Your task to perform on an android device: toggle show notifications on the lock screen Image 0: 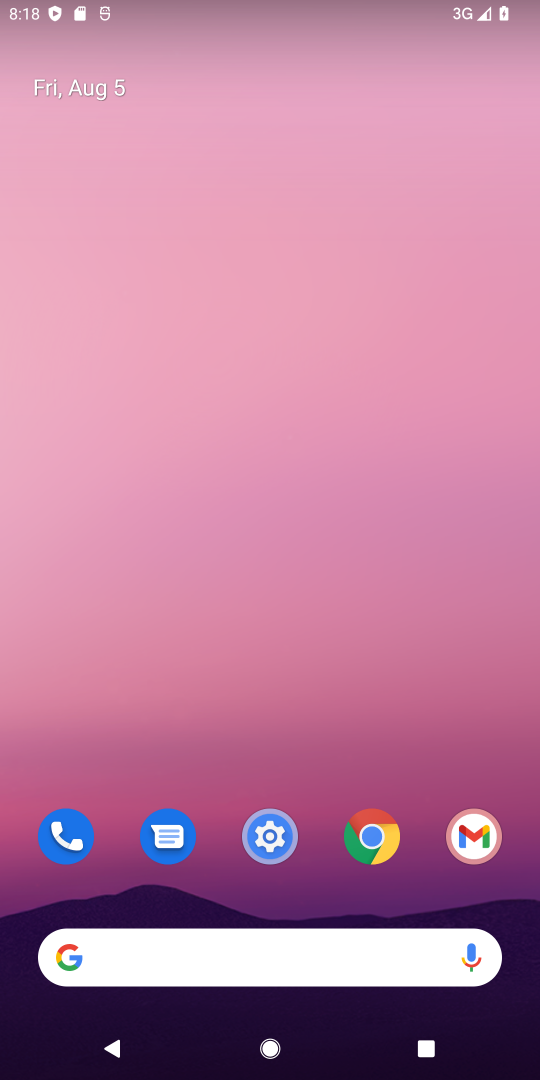
Step 0: click (269, 833)
Your task to perform on an android device: toggle show notifications on the lock screen Image 1: 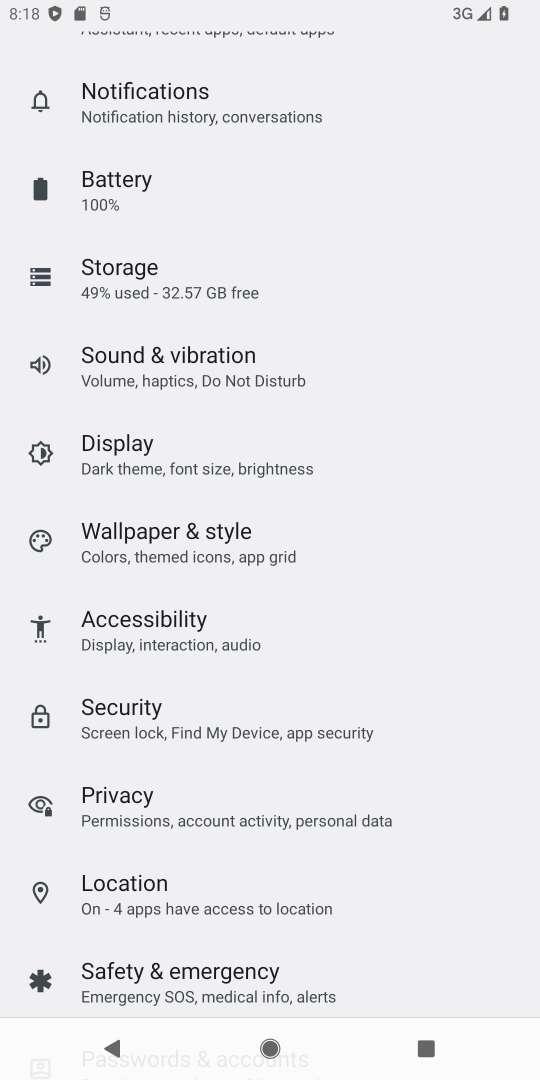
Step 1: click (181, 96)
Your task to perform on an android device: toggle show notifications on the lock screen Image 2: 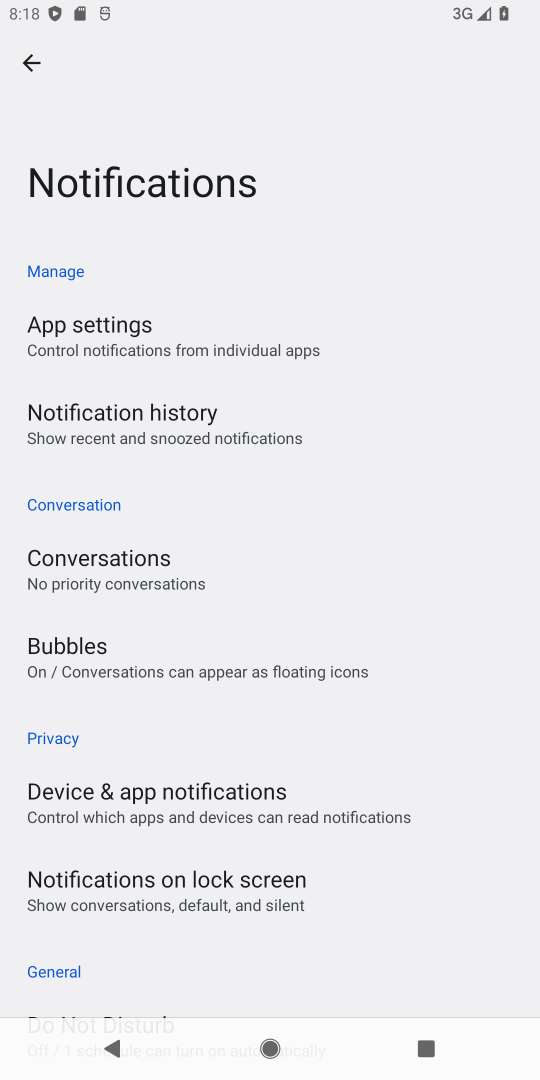
Step 2: click (201, 885)
Your task to perform on an android device: toggle show notifications on the lock screen Image 3: 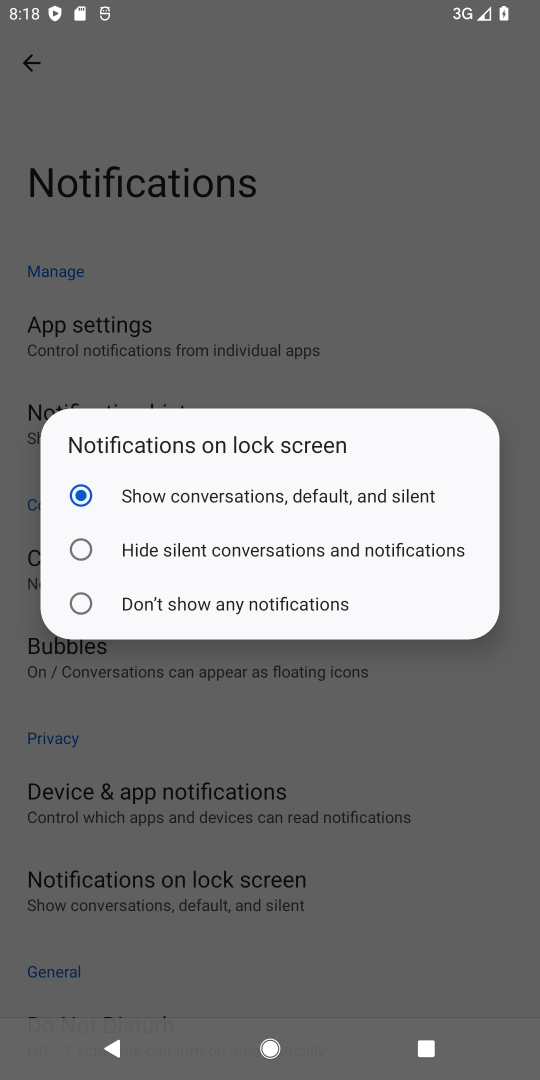
Step 3: click (72, 604)
Your task to perform on an android device: toggle show notifications on the lock screen Image 4: 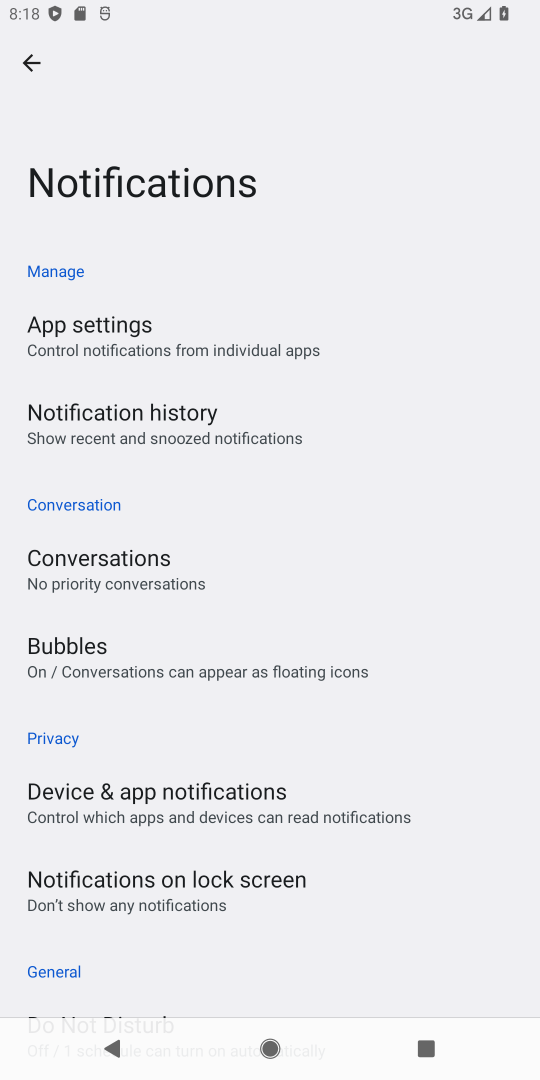
Step 4: task complete